Your task to perform on an android device: What is the recent news? Image 0: 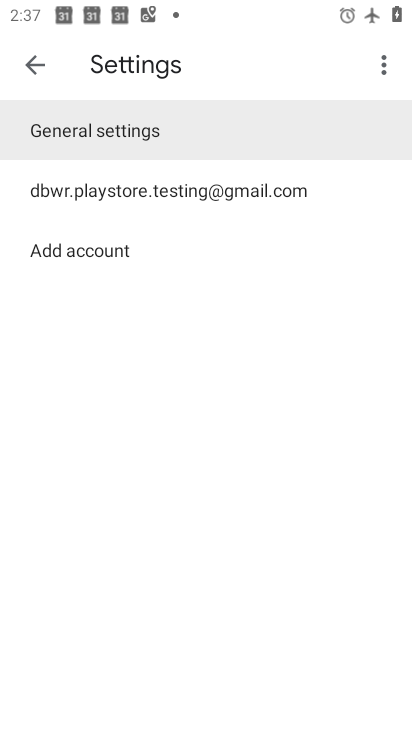
Step 0: press home button
Your task to perform on an android device: What is the recent news? Image 1: 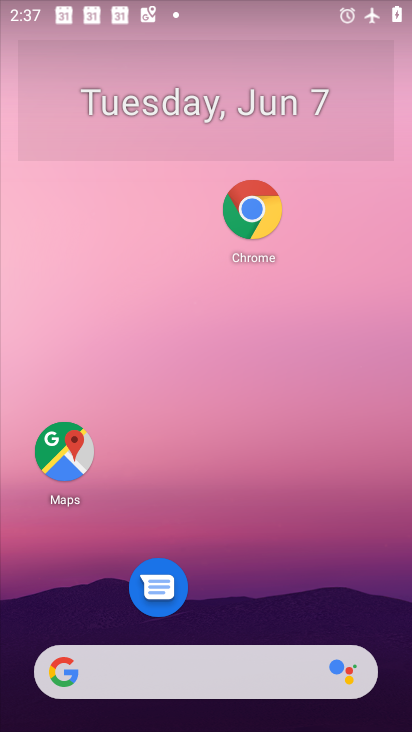
Step 1: drag from (270, 665) to (227, 141)
Your task to perform on an android device: What is the recent news? Image 2: 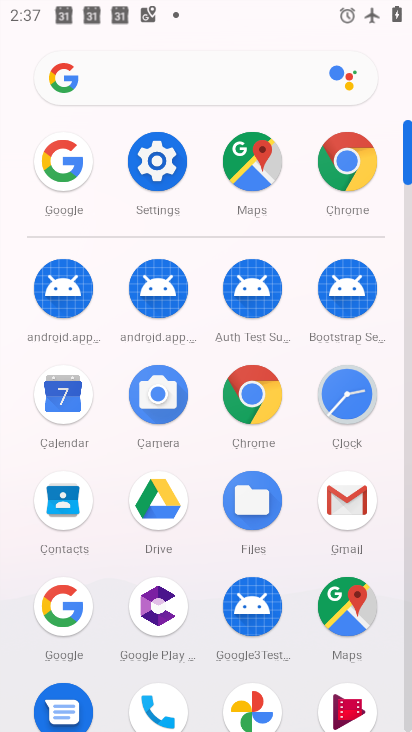
Step 2: click (65, 590)
Your task to perform on an android device: What is the recent news? Image 3: 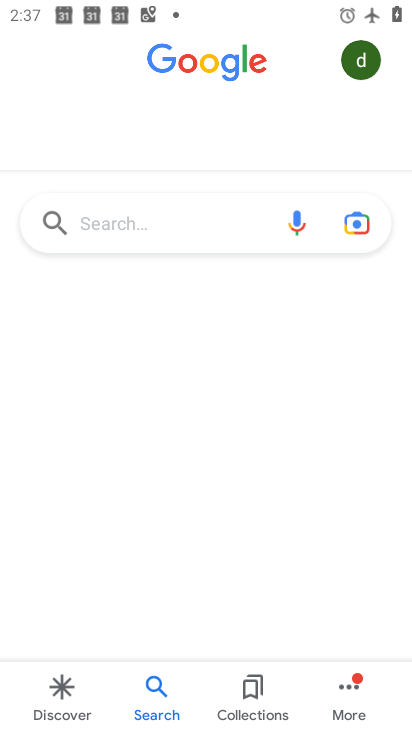
Step 3: click (165, 219)
Your task to perform on an android device: What is the recent news? Image 4: 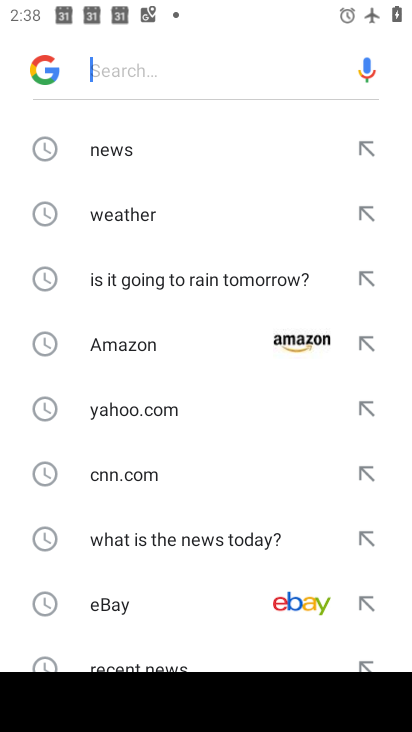
Step 4: click (135, 141)
Your task to perform on an android device: What is the recent news? Image 5: 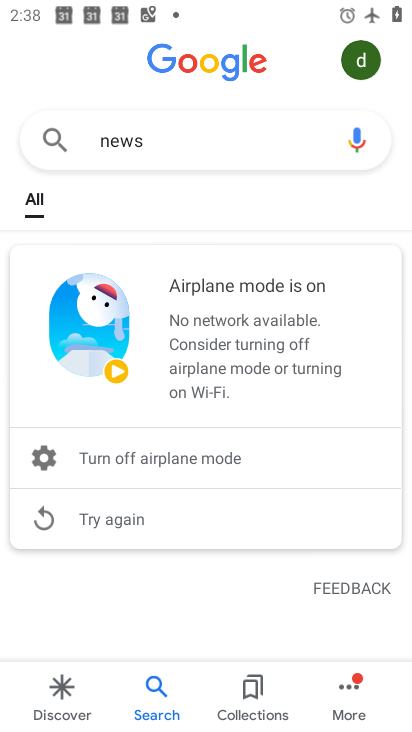
Step 5: task complete